Your task to perform on an android device: Open my contact list Image 0: 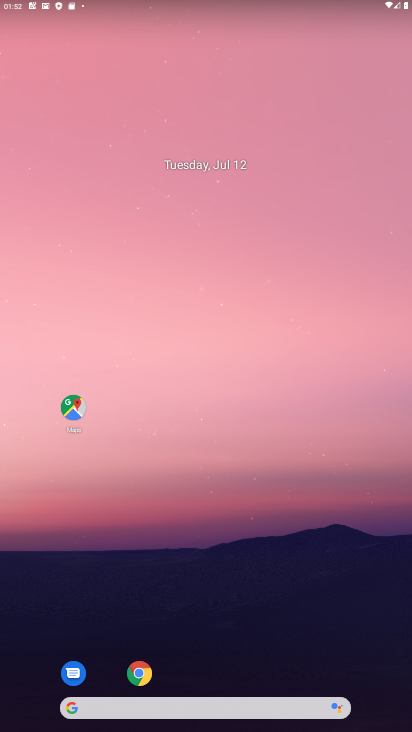
Step 0: press home button
Your task to perform on an android device: Open my contact list Image 1: 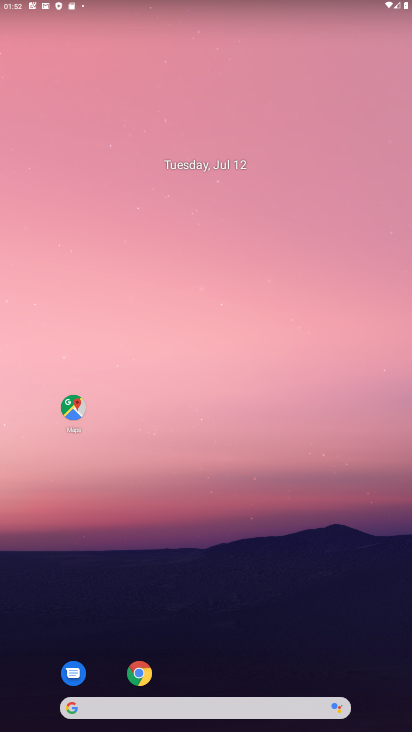
Step 1: drag from (232, 592) to (226, 147)
Your task to perform on an android device: Open my contact list Image 2: 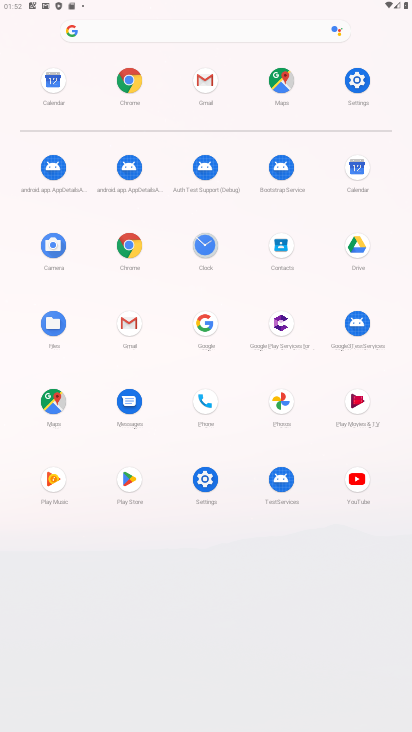
Step 2: click (281, 248)
Your task to perform on an android device: Open my contact list Image 3: 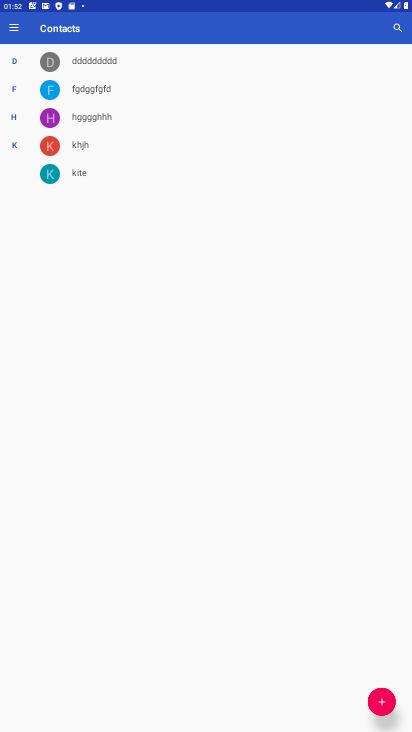
Step 3: task complete